Your task to perform on an android device: turn off translation in the chrome app Image 0: 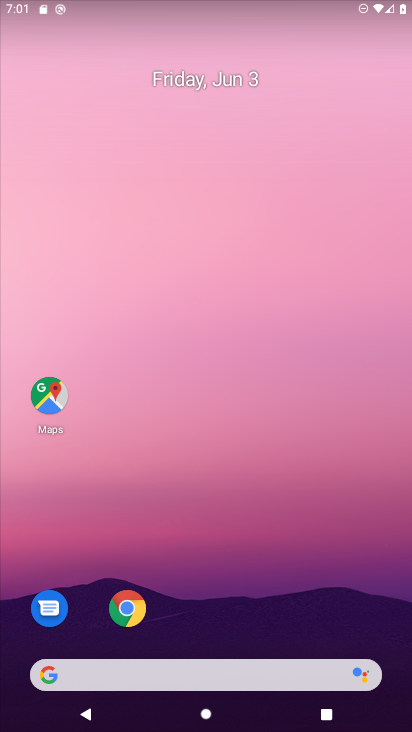
Step 0: click (248, 76)
Your task to perform on an android device: turn off translation in the chrome app Image 1: 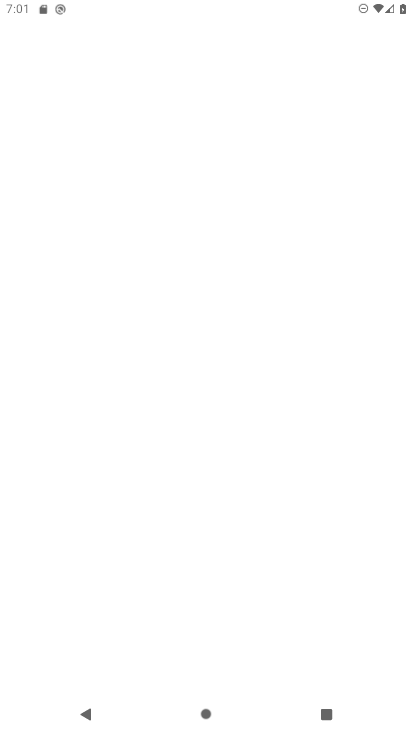
Step 1: press home button
Your task to perform on an android device: turn off translation in the chrome app Image 2: 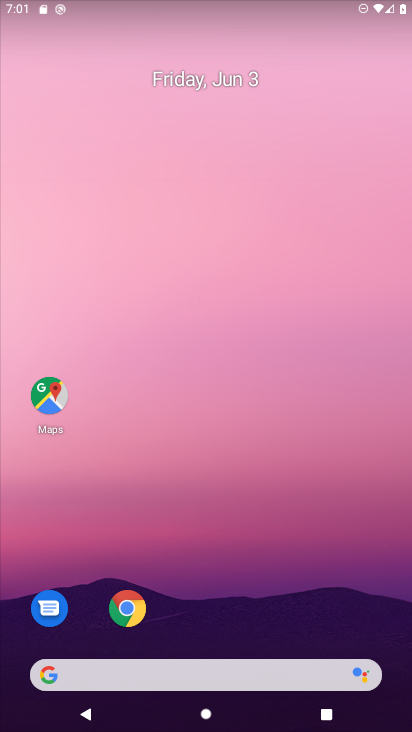
Step 2: click (128, 606)
Your task to perform on an android device: turn off translation in the chrome app Image 3: 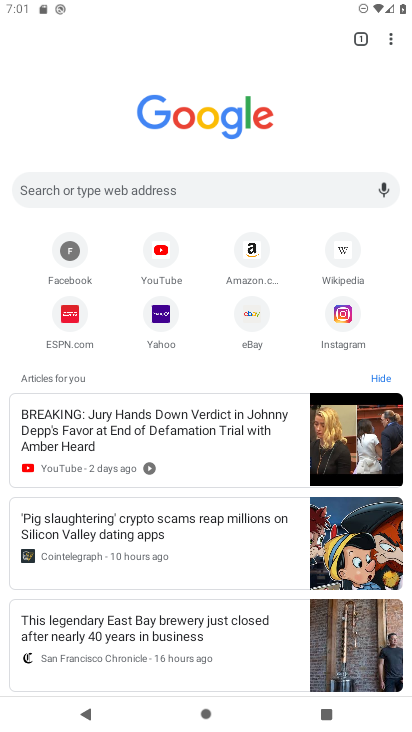
Step 3: click (395, 41)
Your task to perform on an android device: turn off translation in the chrome app Image 4: 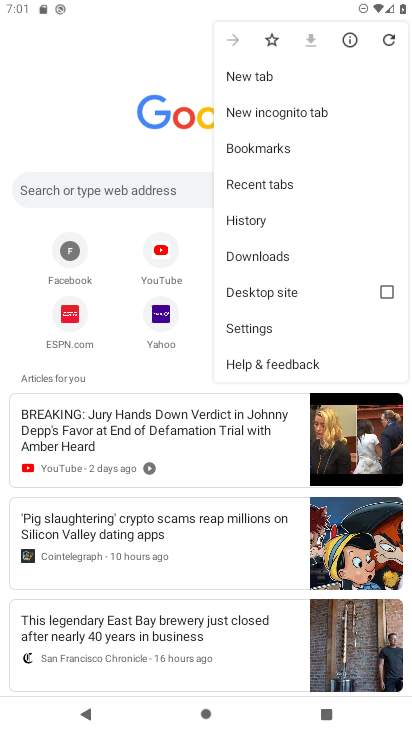
Step 4: click (225, 327)
Your task to perform on an android device: turn off translation in the chrome app Image 5: 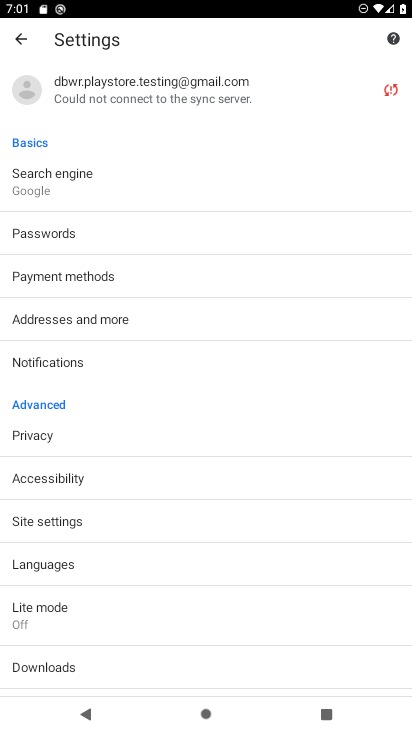
Step 5: click (56, 558)
Your task to perform on an android device: turn off translation in the chrome app Image 6: 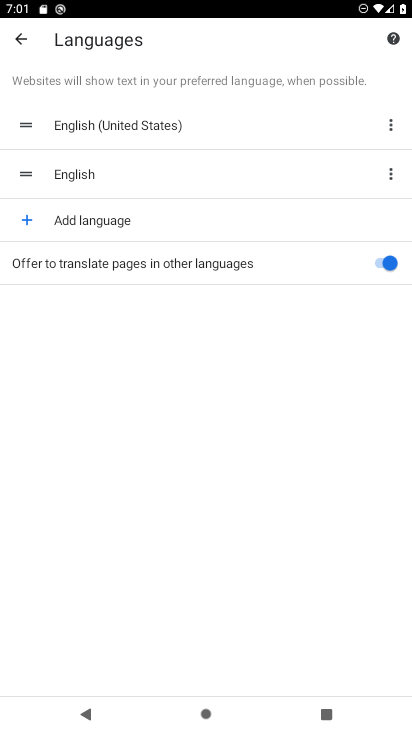
Step 6: click (385, 271)
Your task to perform on an android device: turn off translation in the chrome app Image 7: 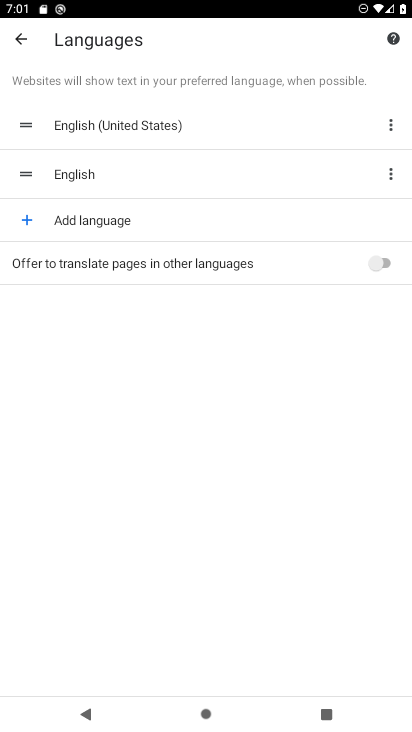
Step 7: task complete